Your task to perform on an android device: Go to internet settings Image 0: 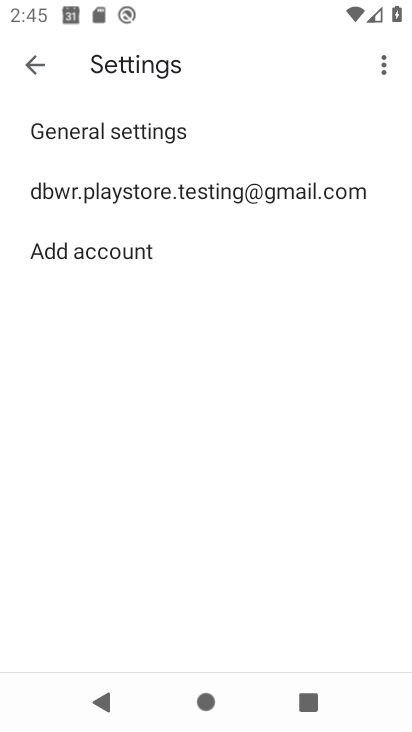
Step 0: press home button
Your task to perform on an android device: Go to internet settings Image 1: 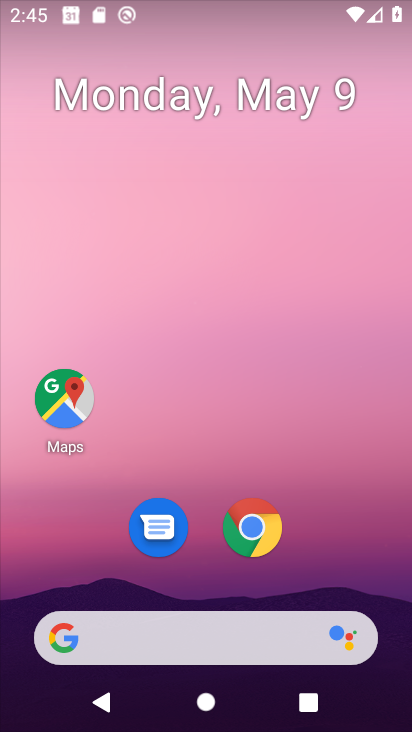
Step 1: drag from (319, 602) to (379, 1)
Your task to perform on an android device: Go to internet settings Image 2: 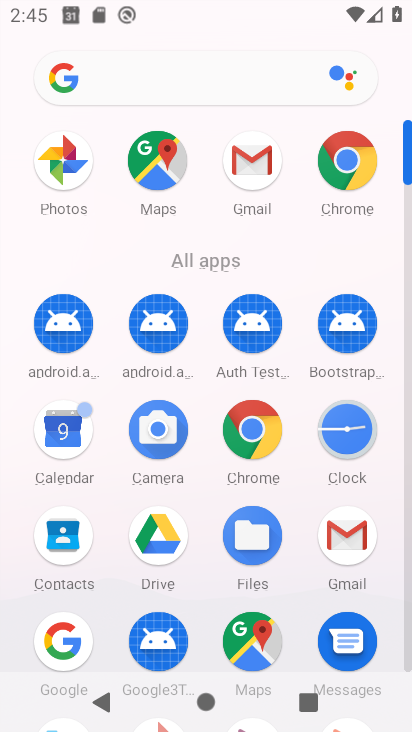
Step 2: drag from (221, 537) to (261, 227)
Your task to perform on an android device: Go to internet settings Image 3: 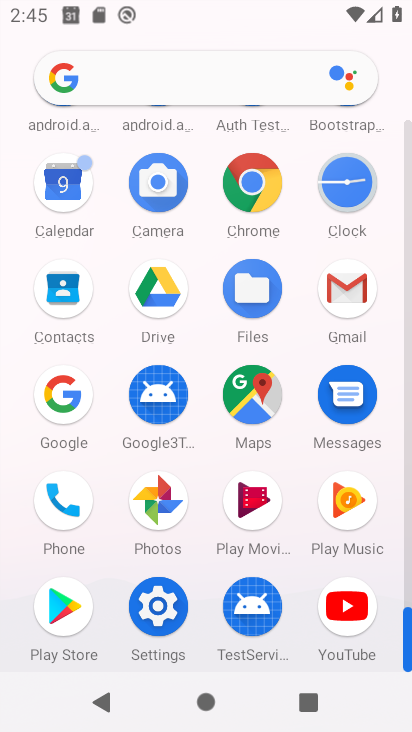
Step 3: click (152, 625)
Your task to perform on an android device: Go to internet settings Image 4: 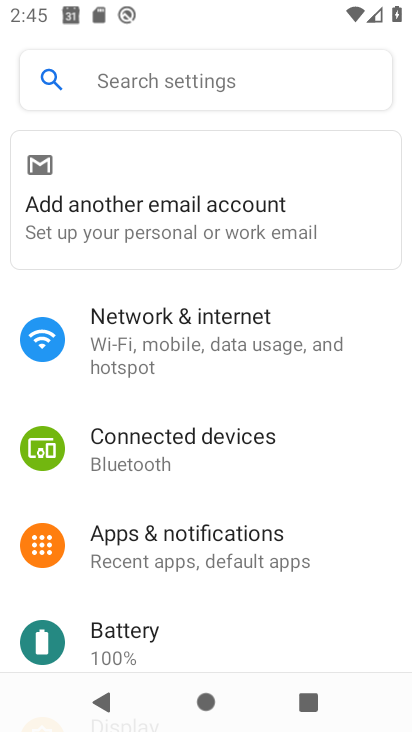
Step 4: drag from (221, 570) to (249, 164)
Your task to perform on an android device: Go to internet settings Image 5: 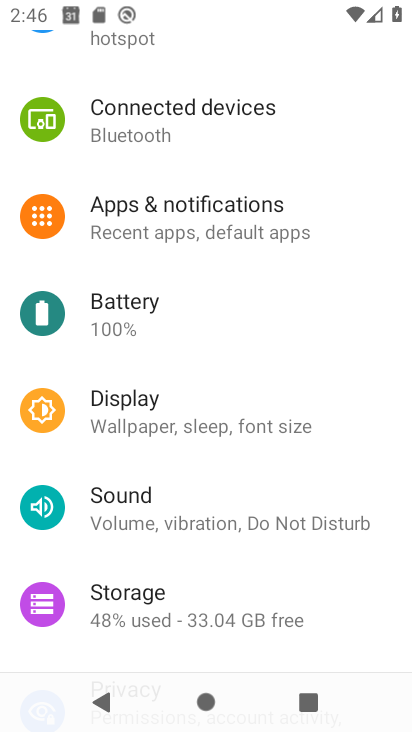
Step 5: drag from (160, 288) to (148, 639)
Your task to perform on an android device: Go to internet settings Image 6: 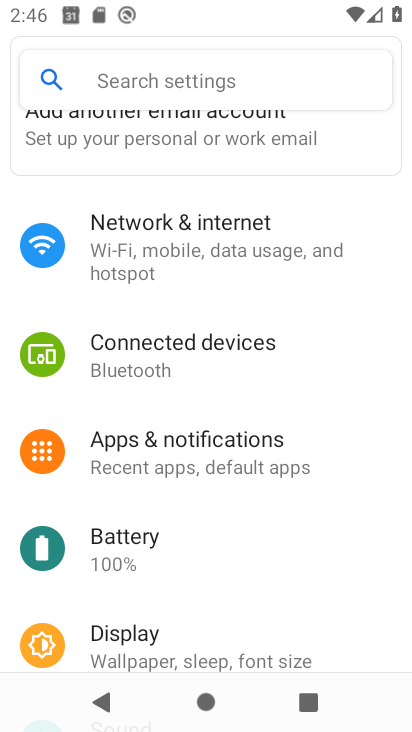
Step 6: drag from (201, 318) to (182, 599)
Your task to perform on an android device: Go to internet settings Image 7: 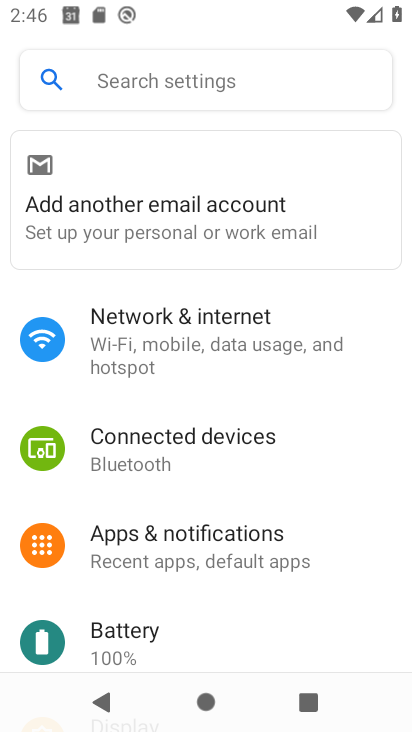
Step 7: click (171, 334)
Your task to perform on an android device: Go to internet settings Image 8: 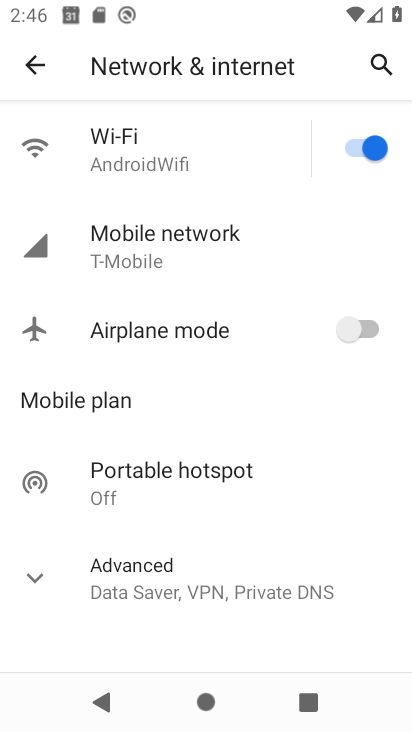
Step 8: click (220, 234)
Your task to perform on an android device: Go to internet settings Image 9: 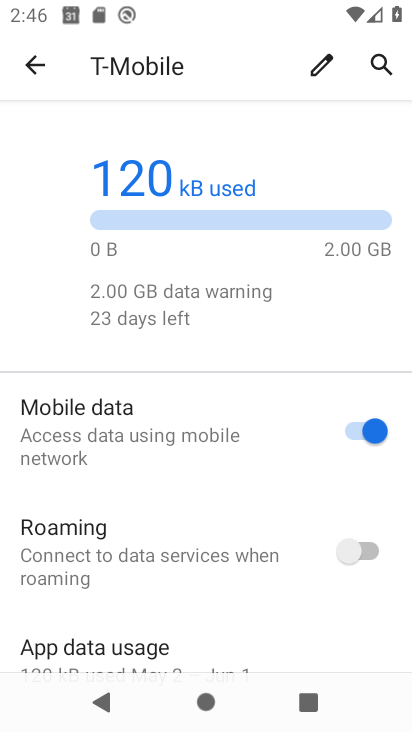
Step 9: task complete